Your task to perform on an android device: open app "ColorNote Notepad Notes" (install if not already installed), go to login, and select forgot password Image 0: 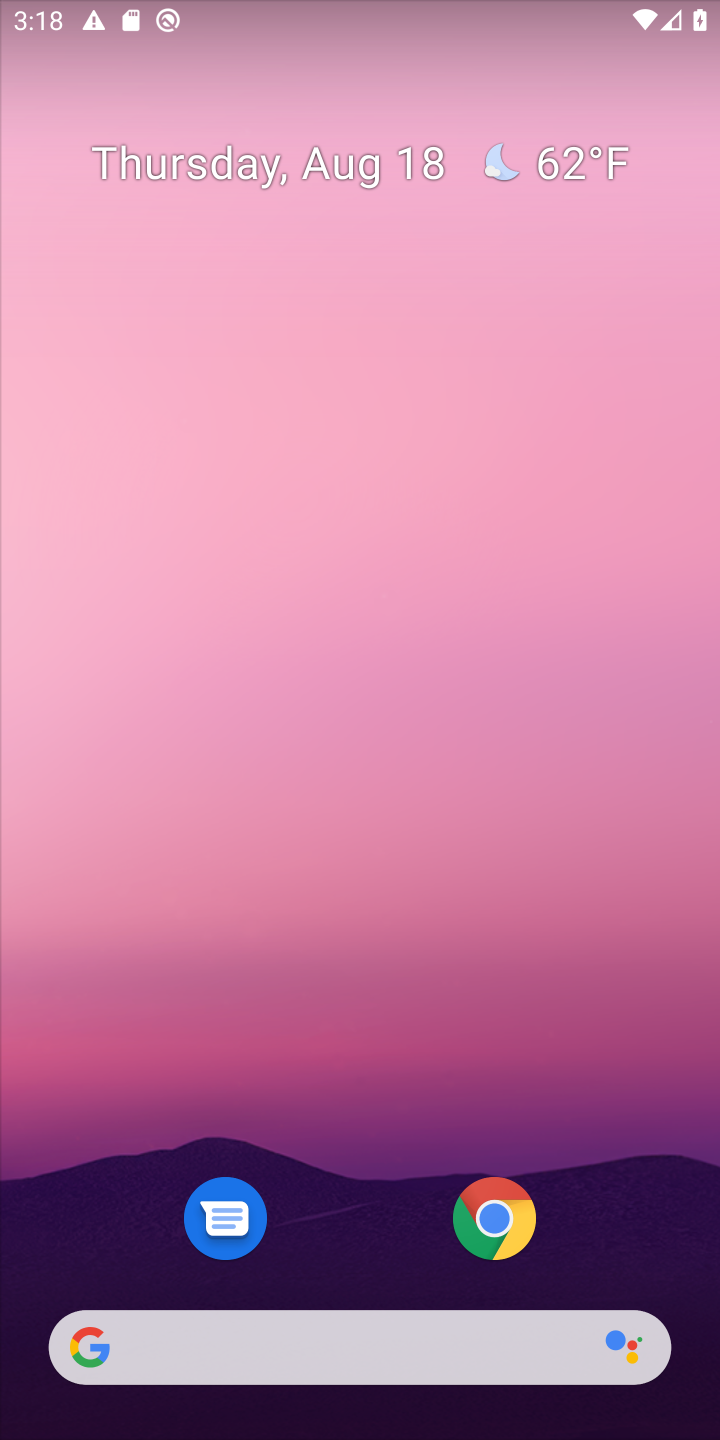
Step 0: drag from (377, 986) to (437, 281)
Your task to perform on an android device: open app "ColorNote Notepad Notes" (install if not already installed), go to login, and select forgot password Image 1: 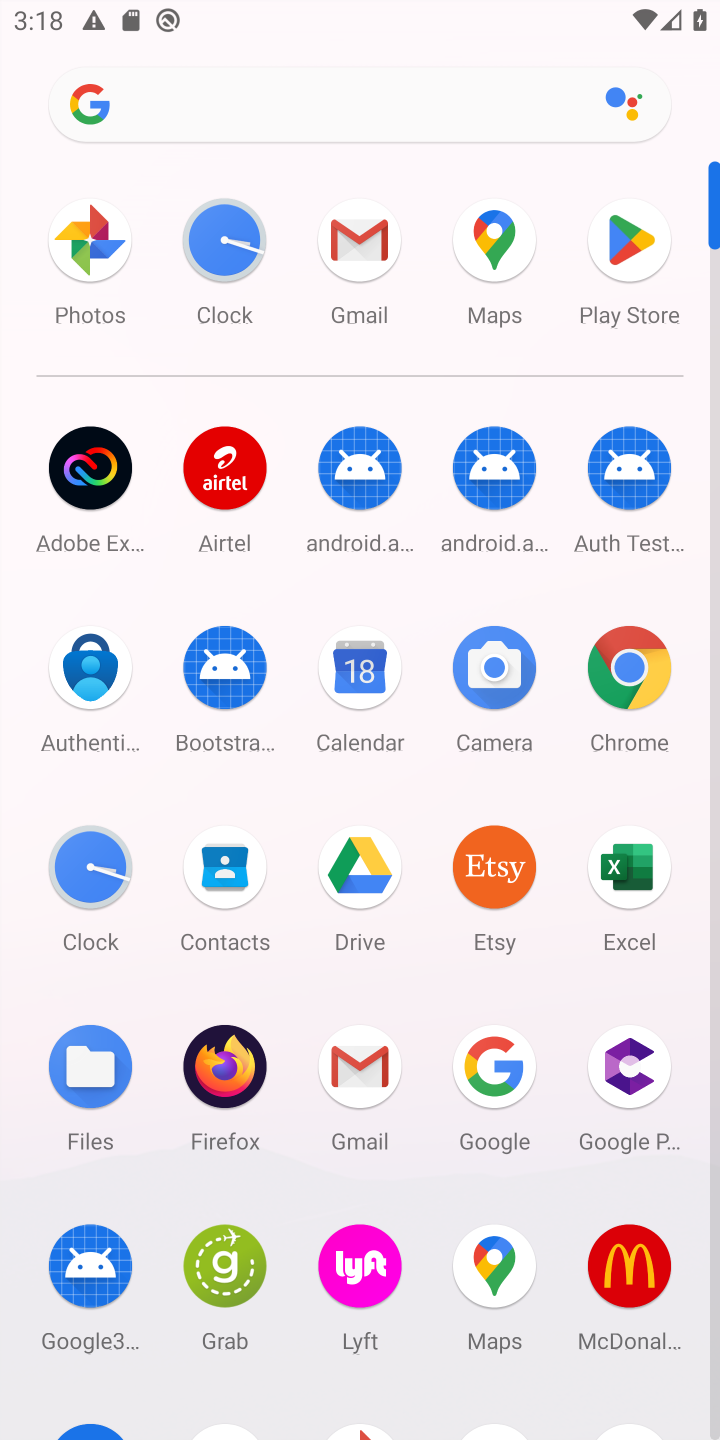
Step 1: click (621, 252)
Your task to perform on an android device: open app "ColorNote Notepad Notes" (install if not already installed), go to login, and select forgot password Image 2: 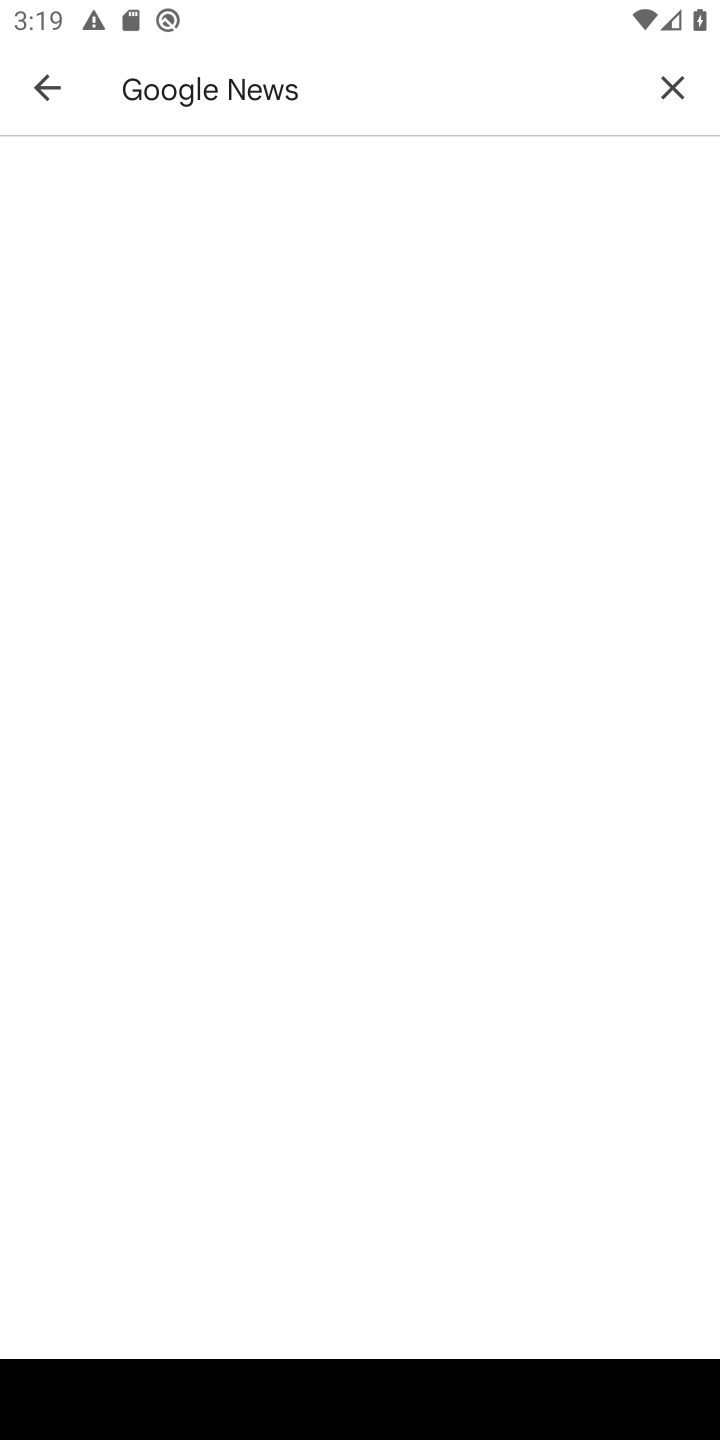
Step 2: click (672, 70)
Your task to perform on an android device: open app "ColorNote Notepad Notes" (install if not already installed), go to login, and select forgot password Image 3: 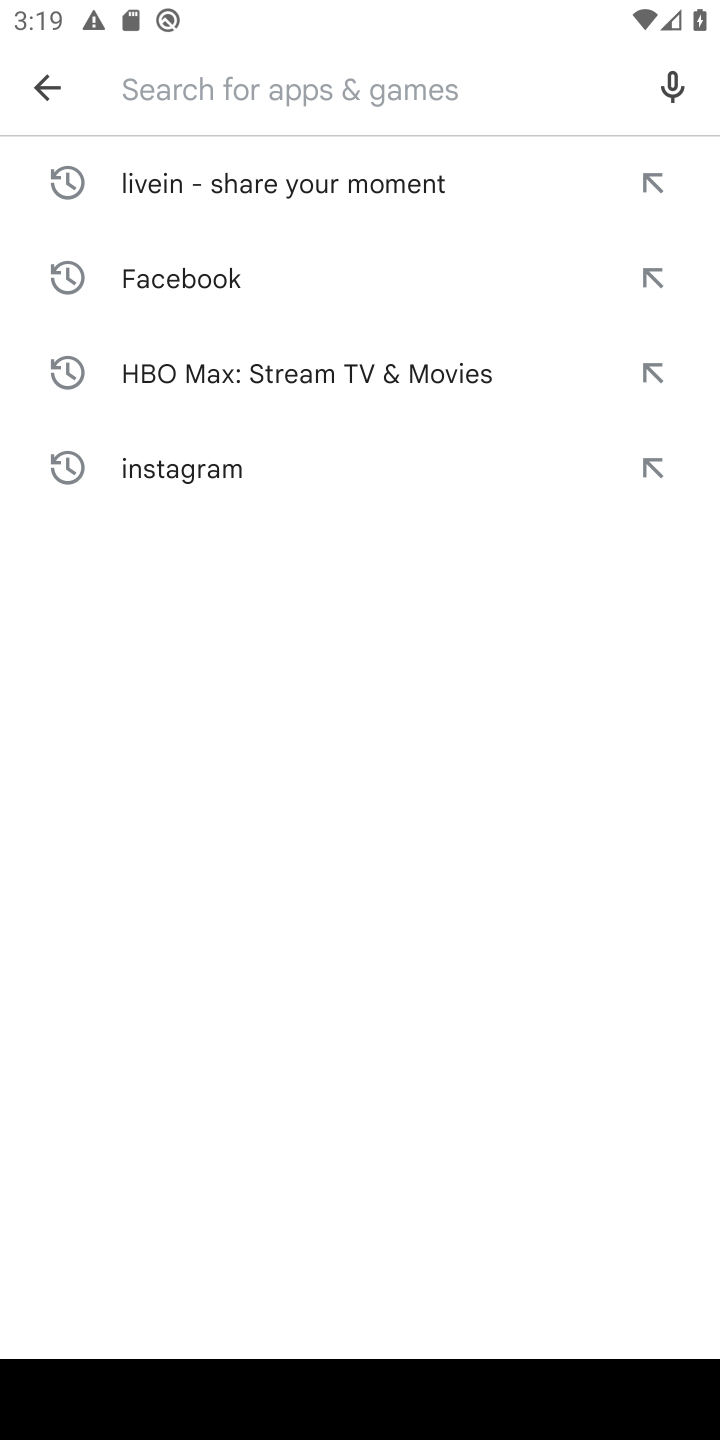
Step 3: type "ColorNote Notepad Notes"
Your task to perform on an android device: open app "ColorNote Notepad Notes" (install if not already installed), go to login, and select forgot password Image 4: 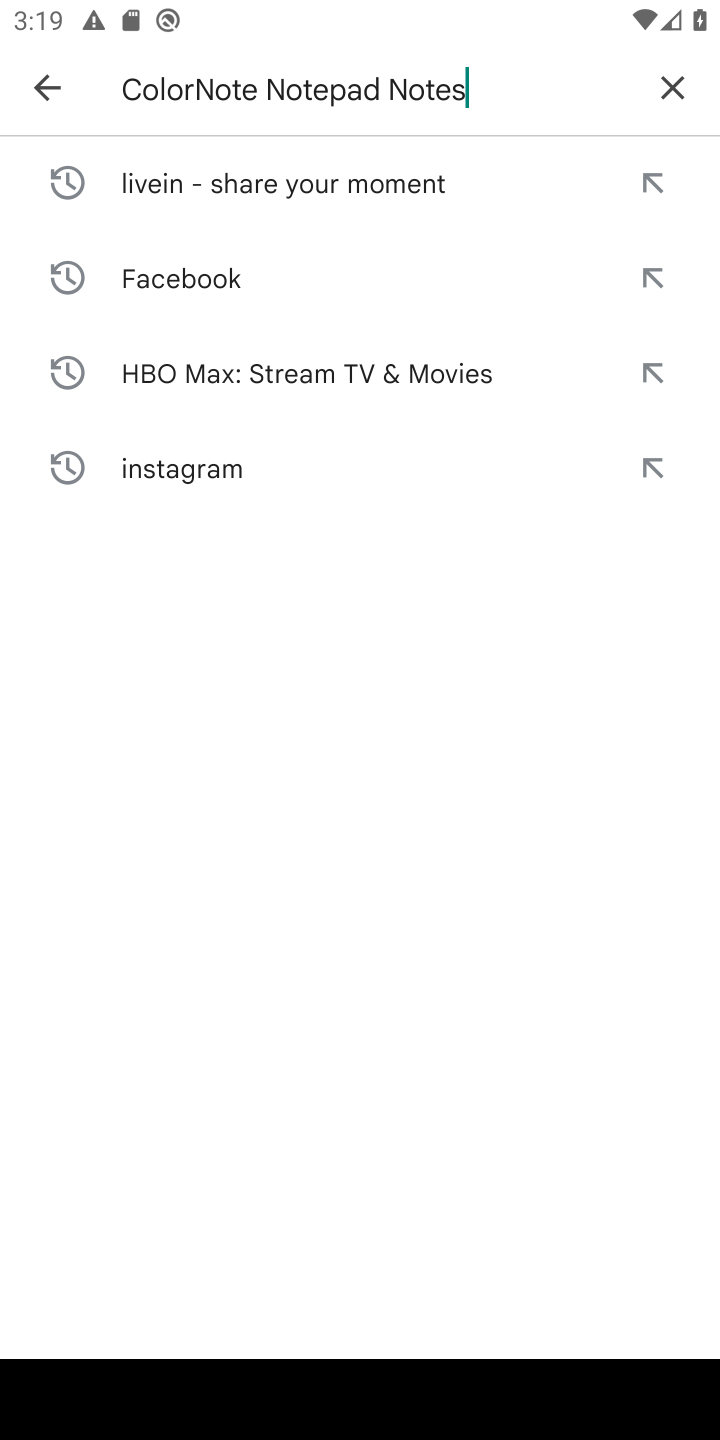
Step 4: type ""
Your task to perform on an android device: open app "ColorNote Notepad Notes" (install if not already installed), go to login, and select forgot password Image 5: 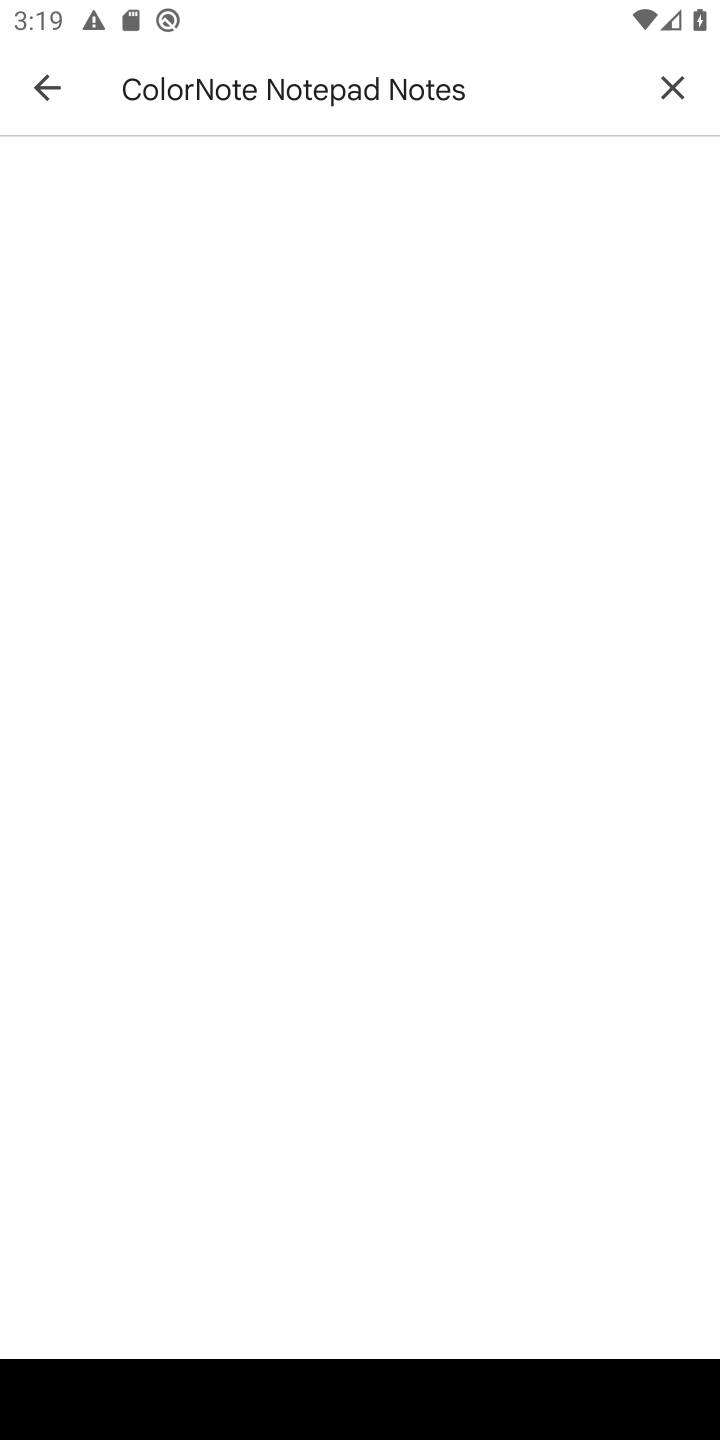
Step 5: type ""
Your task to perform on an android device: open app "ColorNote Notepad Notes" (install if not already installed), go to login, and select forgot password Image 6: 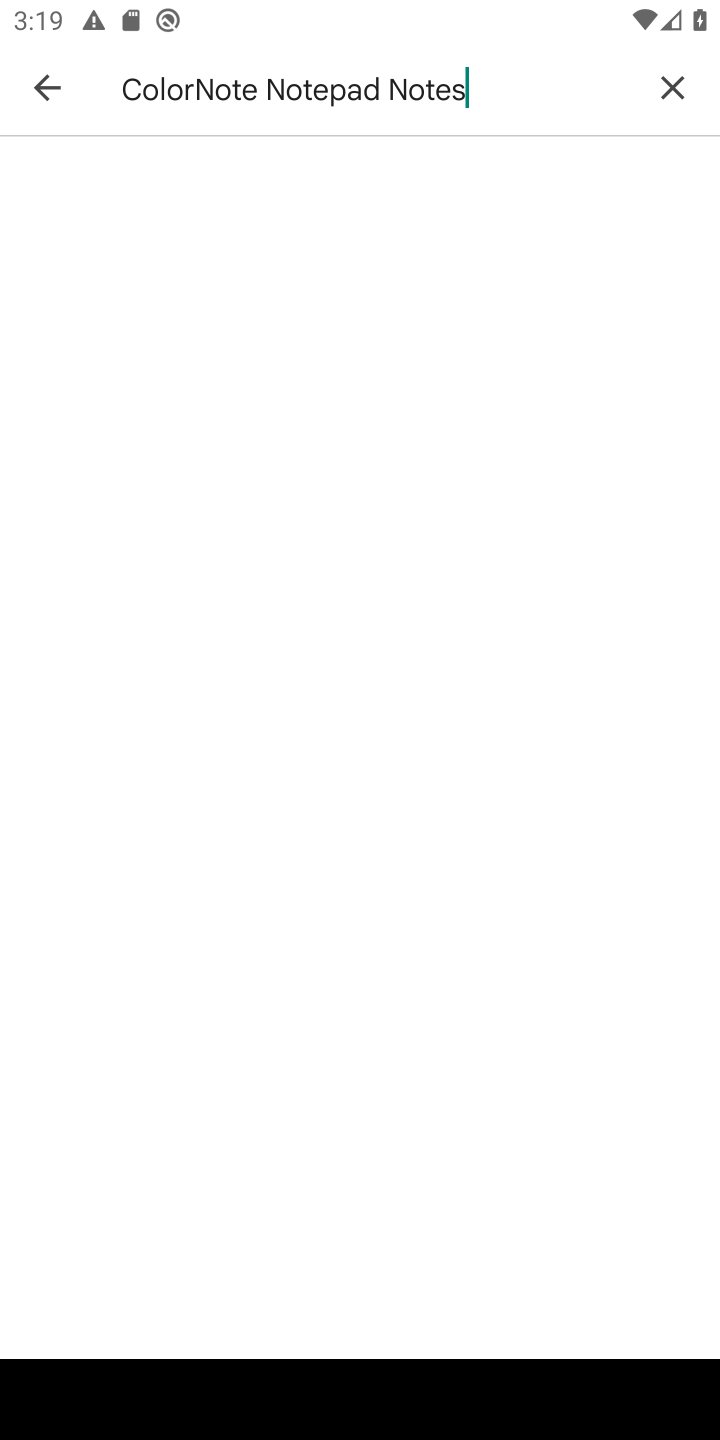
Step 6: task complete